Your task to perform on an android device: check out phone information Image 0: 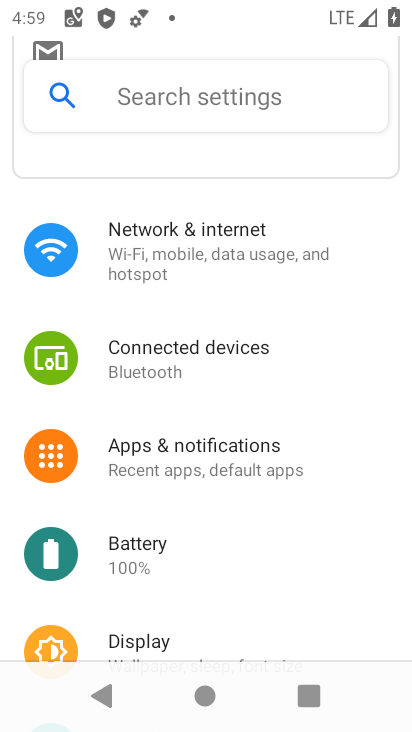
Step 0: drag from (350, 607) to (298, 168)
Your task to perform on an android device: check out phone information Image 1: 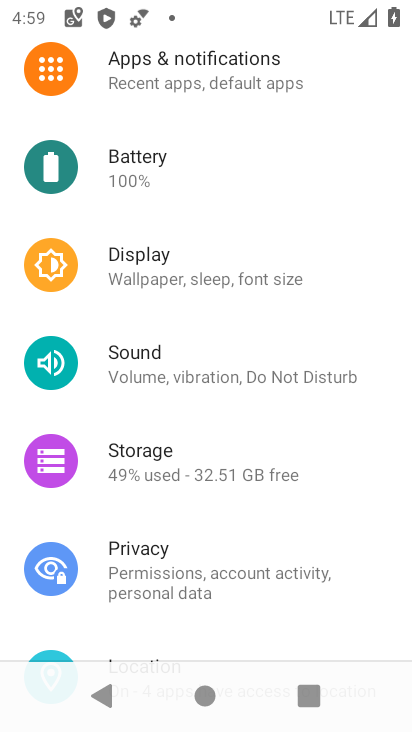
Step 1: drag from (348, 631) to (286, 98)
Your task to perform on an android device: check out phone information Image 2: 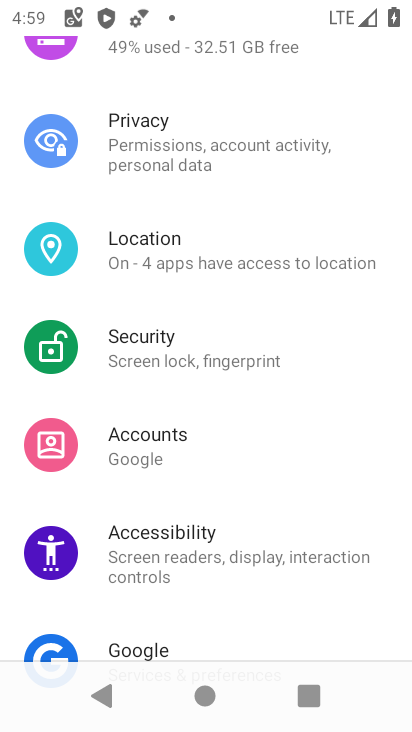
Step 2: drag from (312, 579) to (255, 141)
Your task to perform on an android device: check out phone information Image 3: 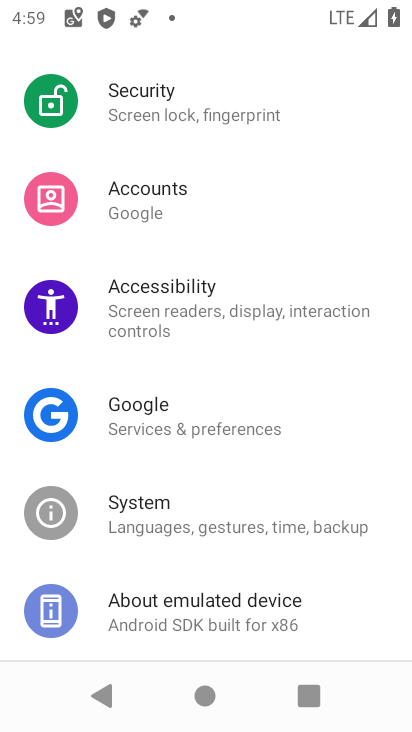
Step 3: click (163, 621)
Your task to perform on an android device: check out phone information Image 4: 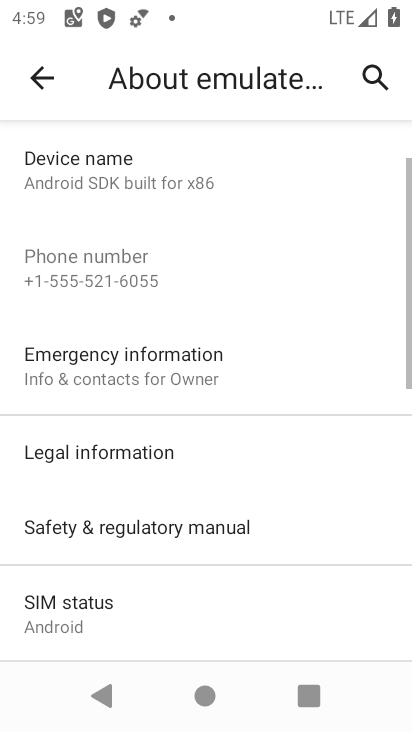
Step 4: task complete